Your task to perform on an android device: Install the Spotify app Image 0: 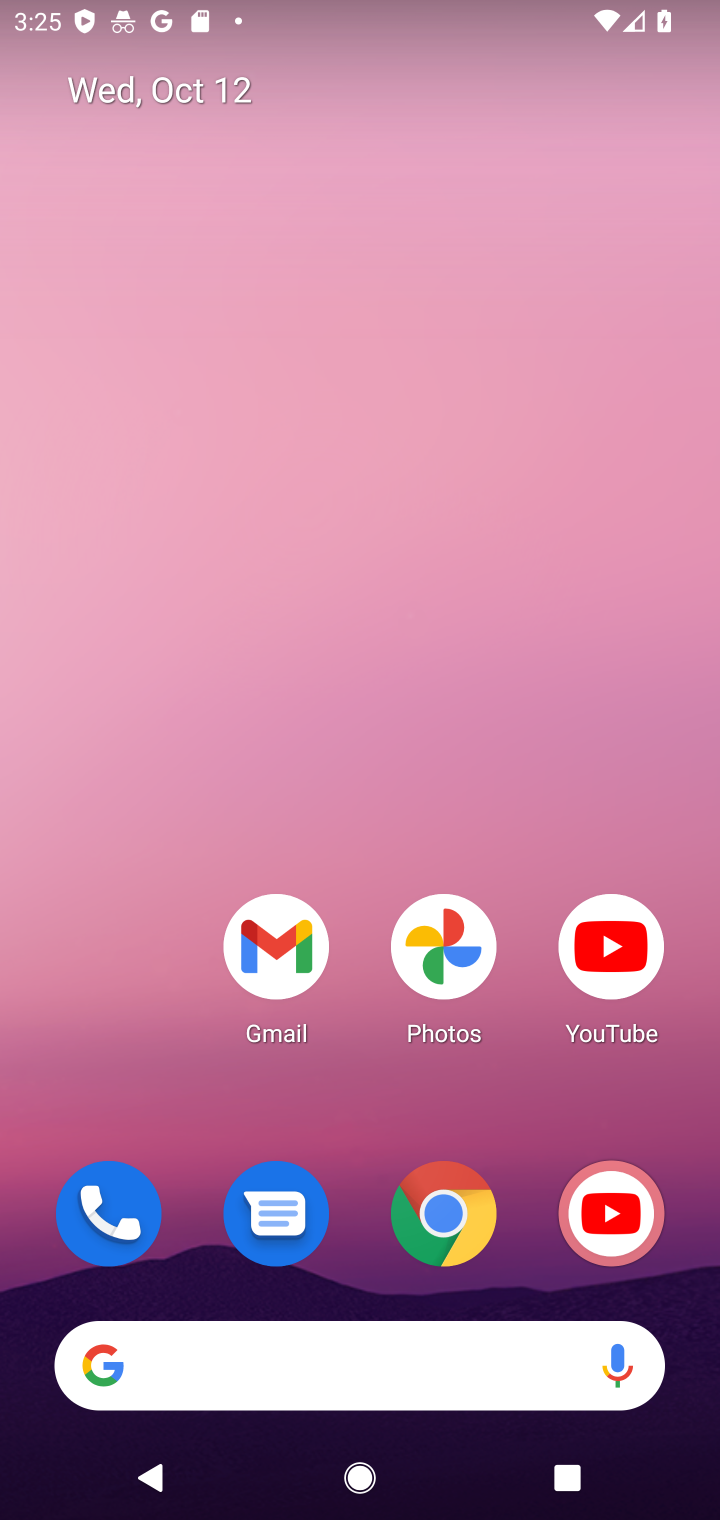
Step 0: drag from (489, 3) to (619, 196)
Your task to perform on an android device: Install the Spotify app Image 1: 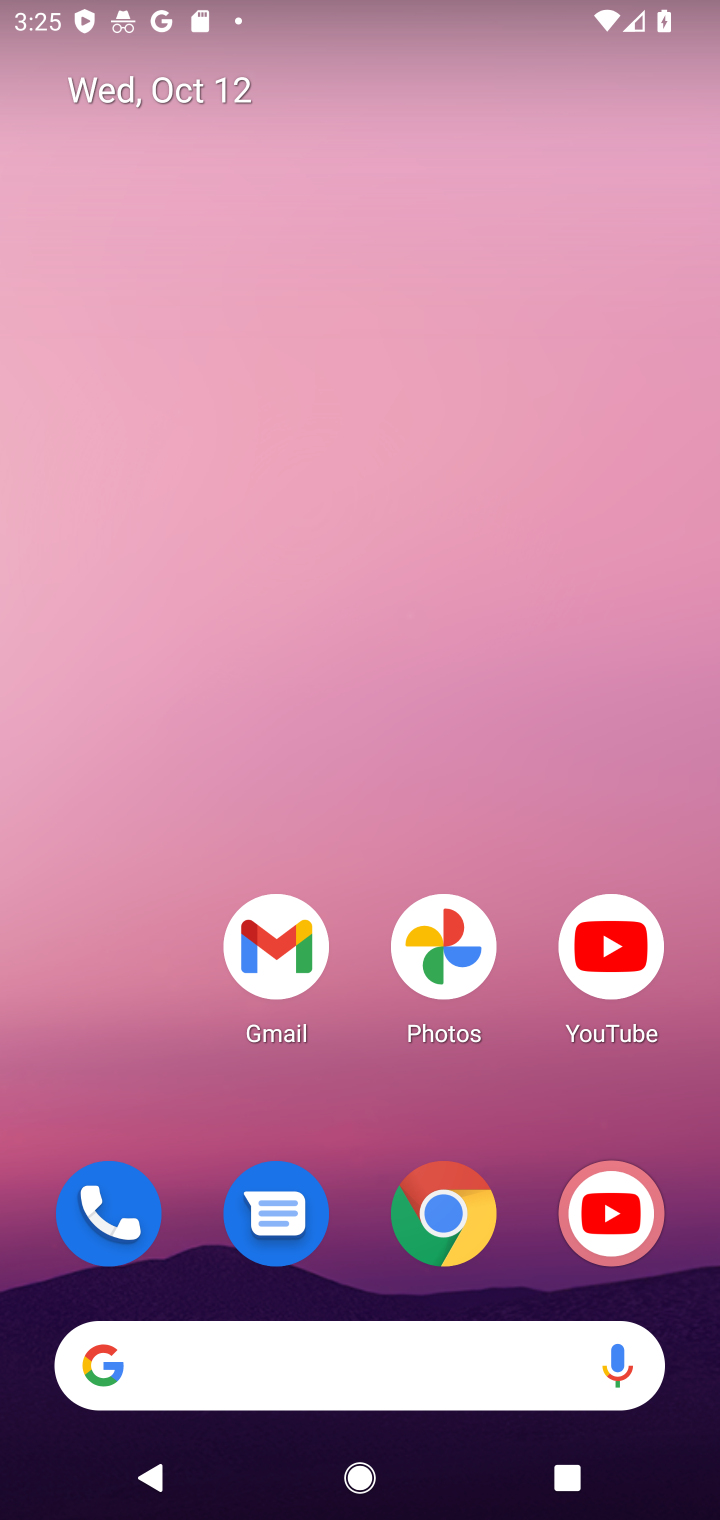
Step 1: drag from (351, 1249) to (432, 14)
Your task to perform on an android device: Install the Spotify app Image 2: 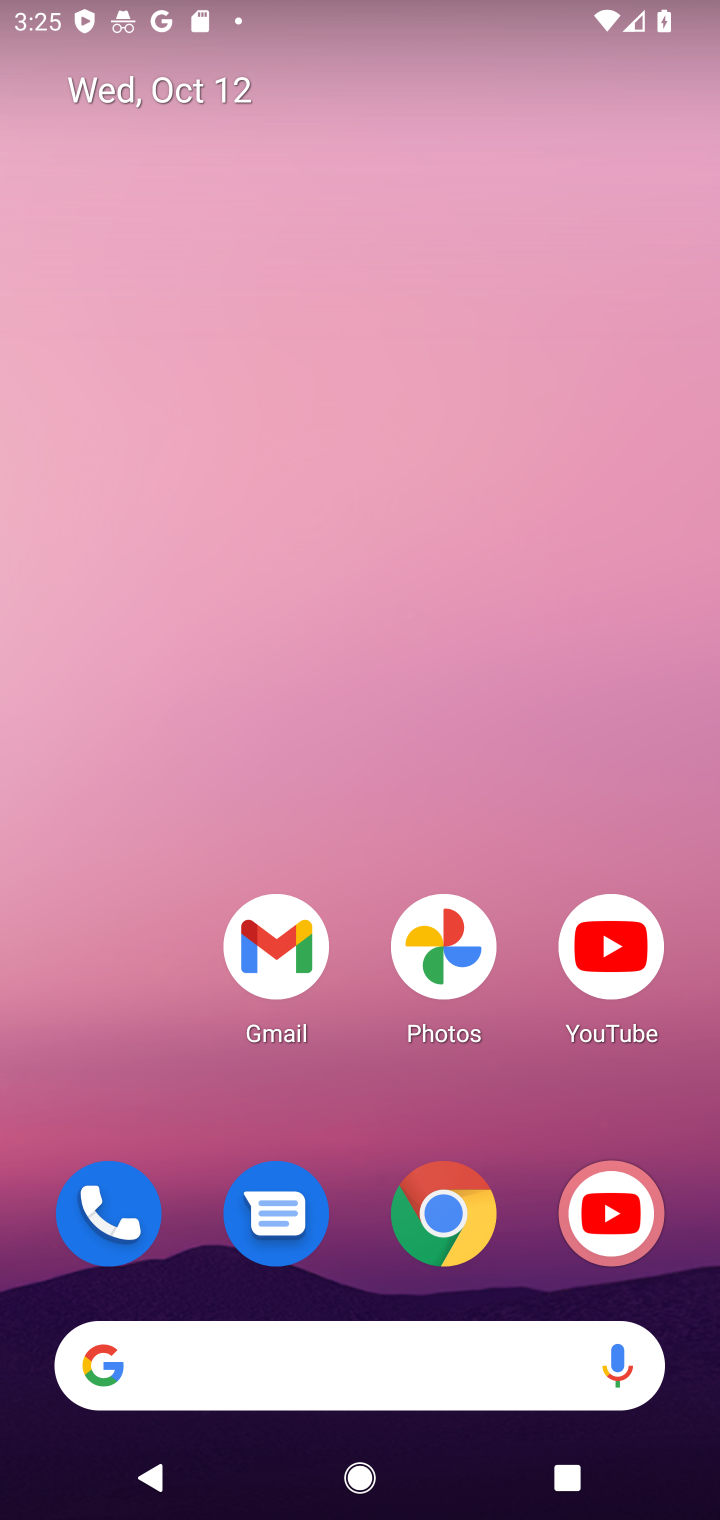
Step 2: drag from (303, 890) to (282, 25)
Your task to perform on an android device: Install the Spotify app Image 3: 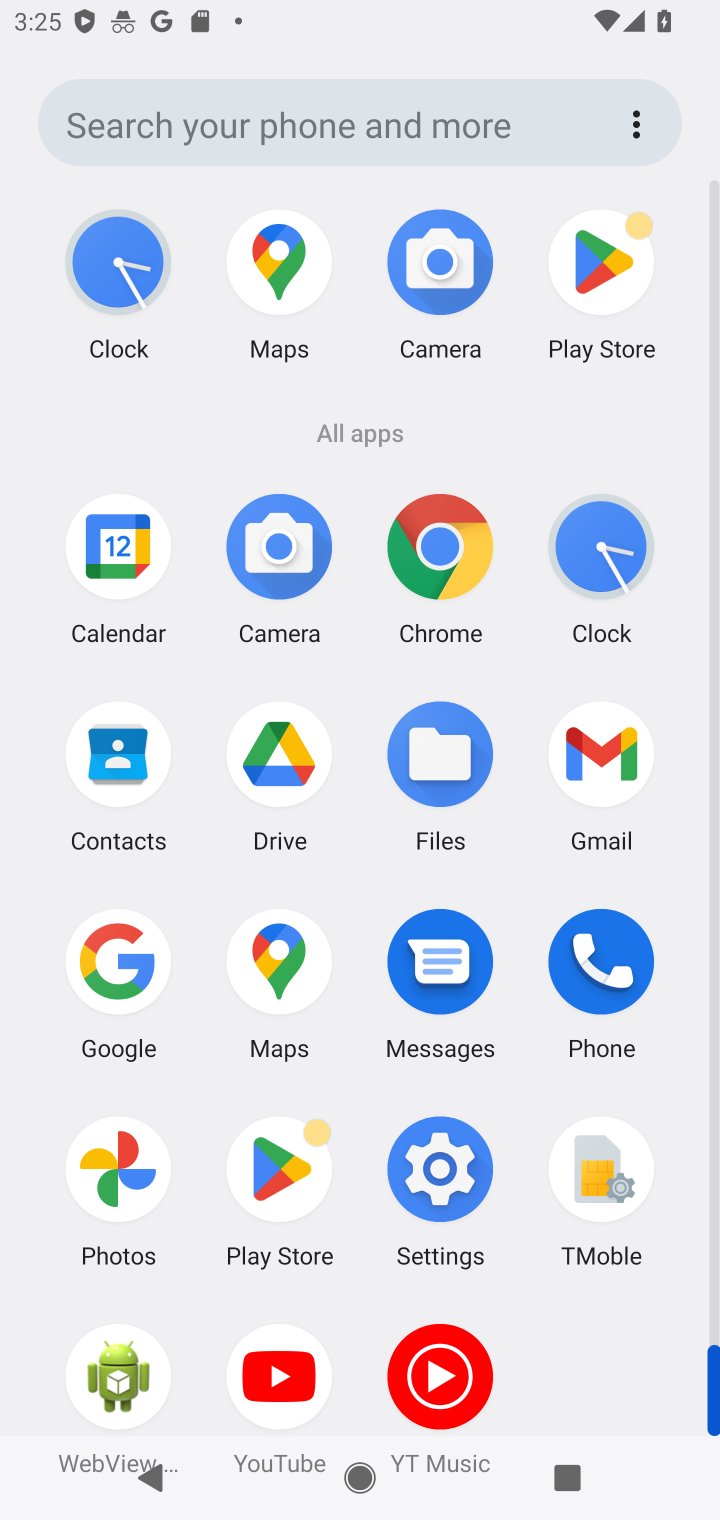
Step 3: click (628, 271)
Your task to perform on an android device: Install the Spotify app Image 4: 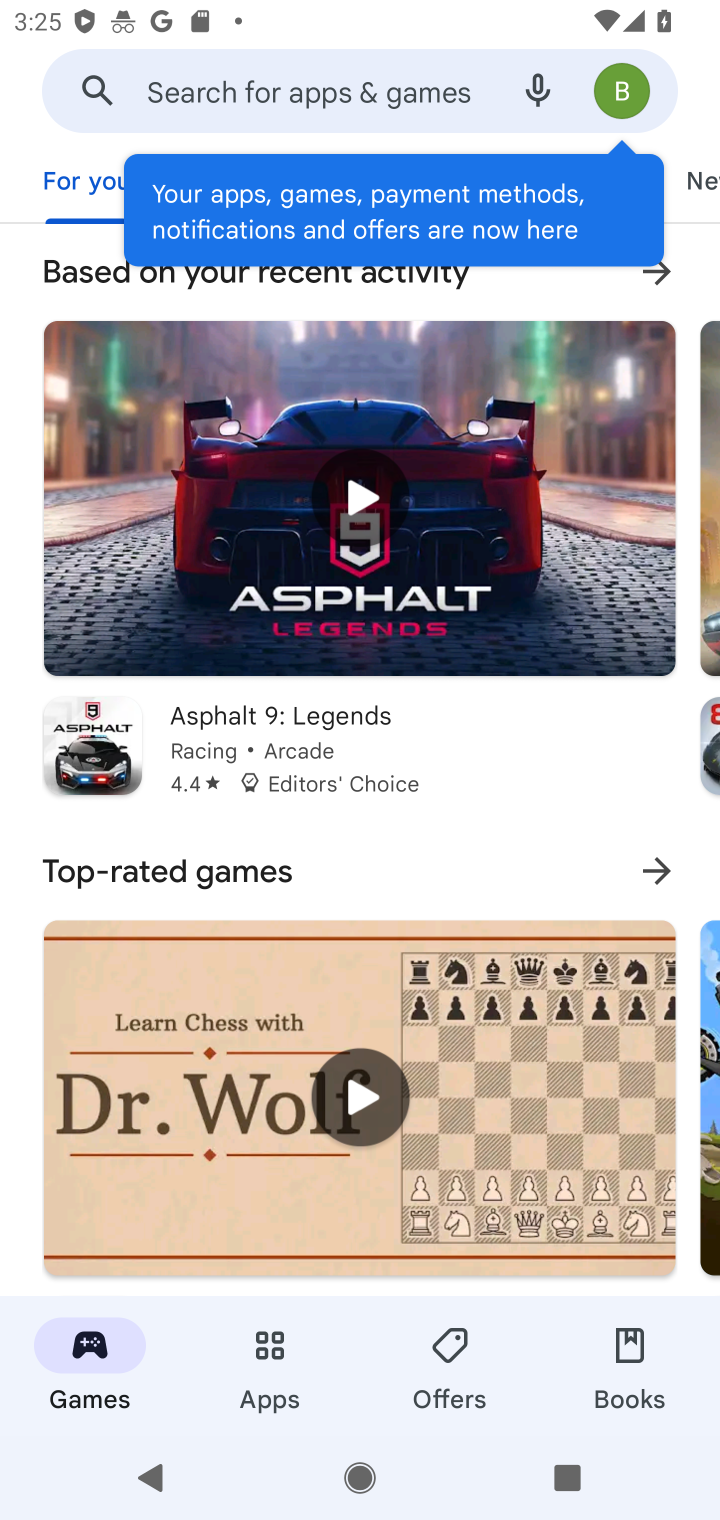
Step 4: click (271, 67)
Your task to perform on an android device: Install the Spotify app Image 5: 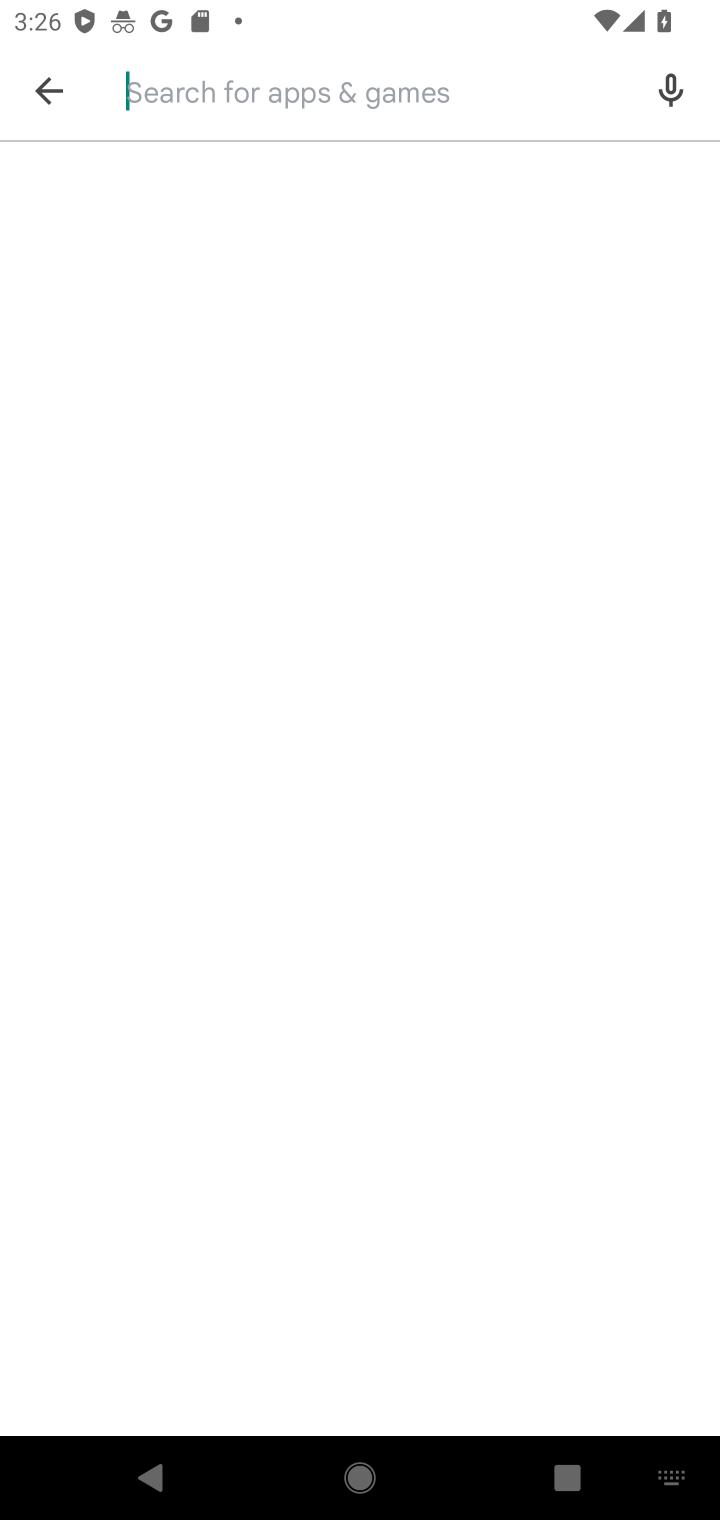
Step 5: type "spotify"
Your task to perform on an android device: Install the Spotify app Image 6: 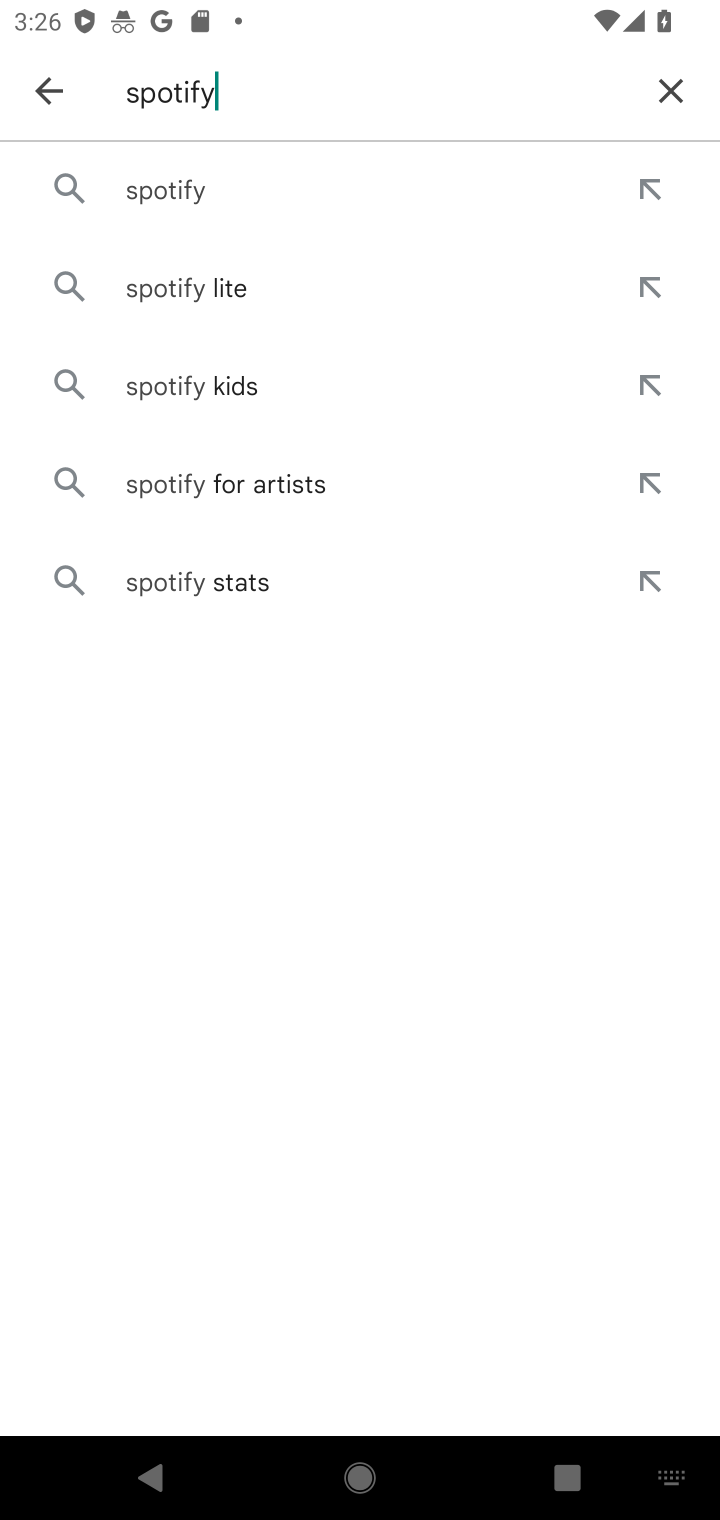
Step 6: click (253, 192)
Your task to perform on an android device: Install the Spotify app Image 7: 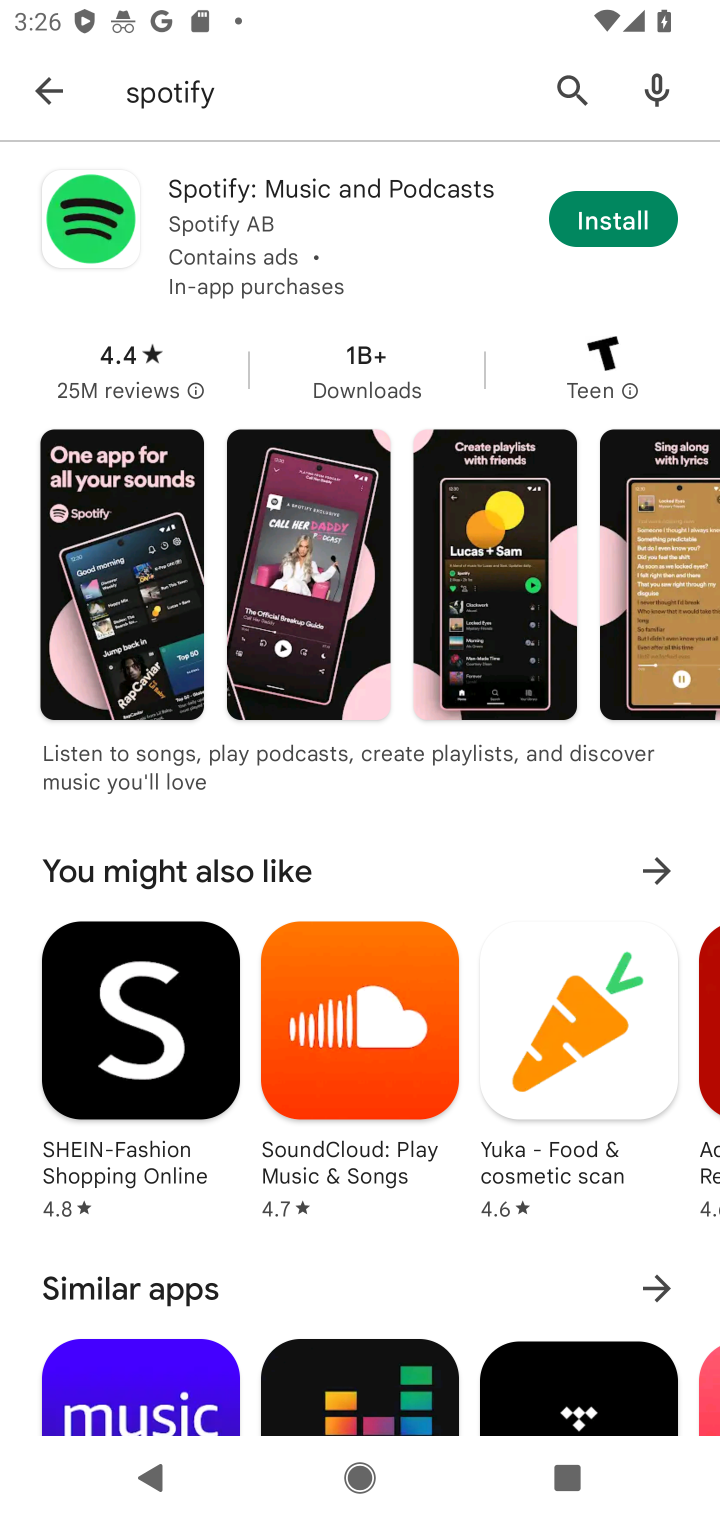
Step 7: click (630, 215)
Your task to perform on an android device: Install the Spotify app Image 8: 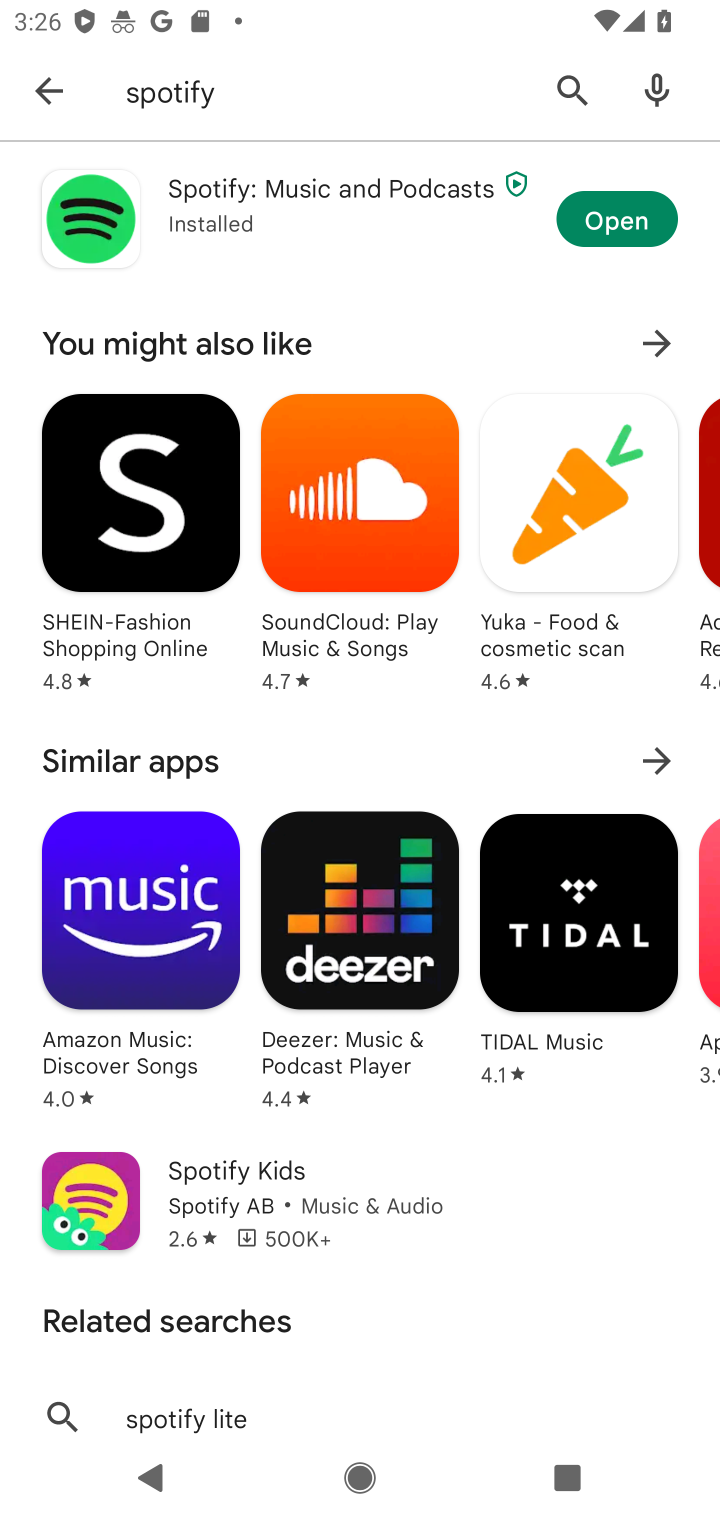
Step 8: click (595, 230)
Your task to perform on an android device: Install the Spotify app Image 9: 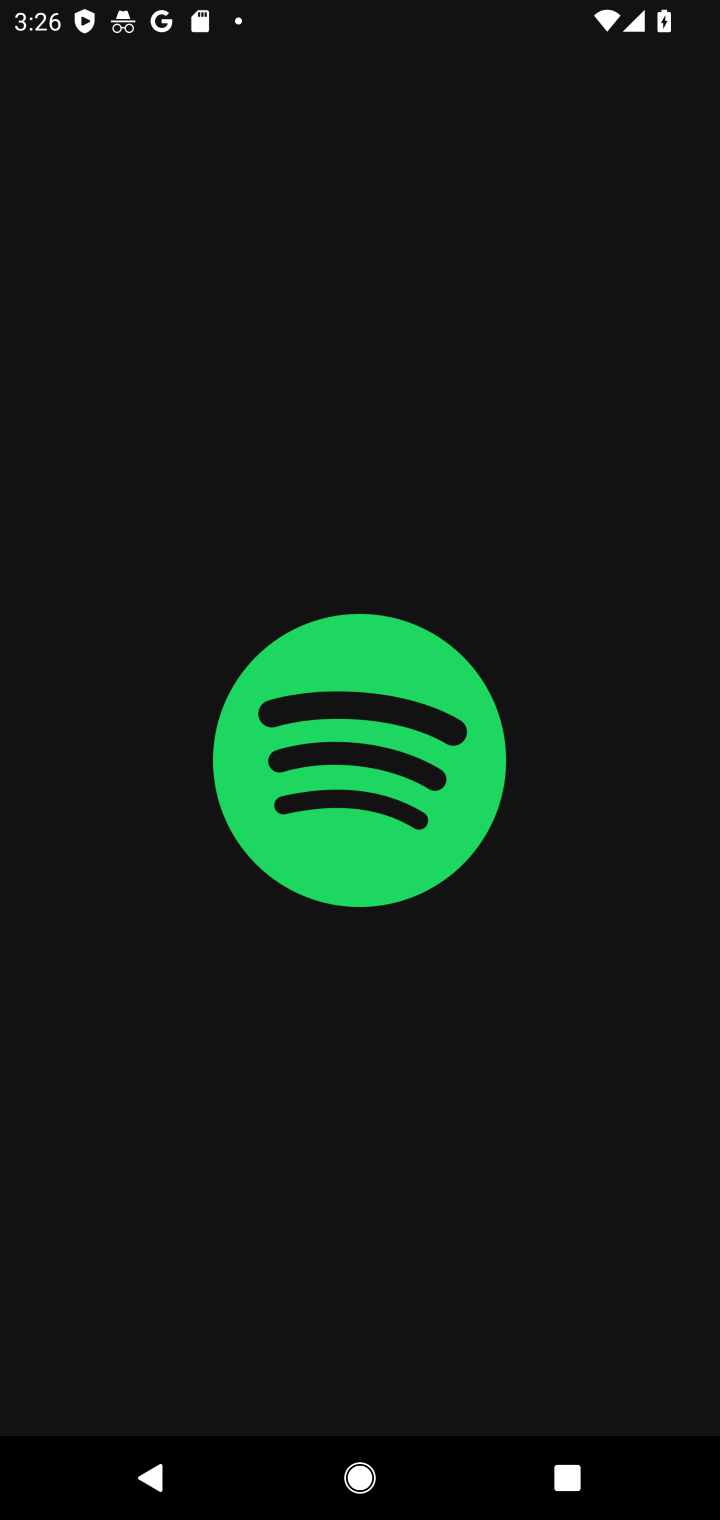
Step 9: task complete